Your task to perform on an android device: read, delete, or share a saved page in the chrome app Image 0: 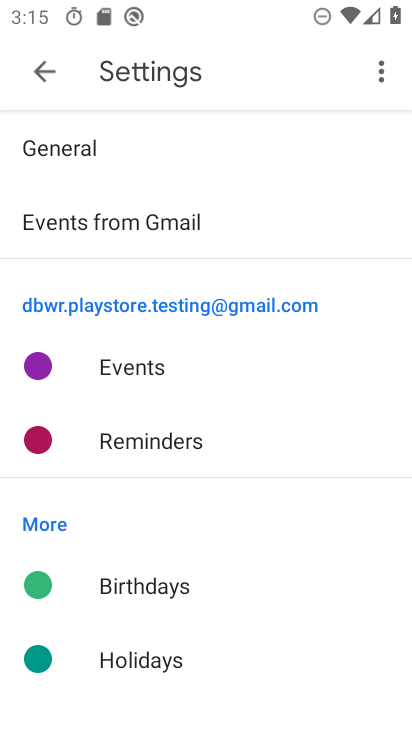
Step 0: press home button
Your task to perform on an android device: read, delete, or share a saved page in the chrome app Image 1: 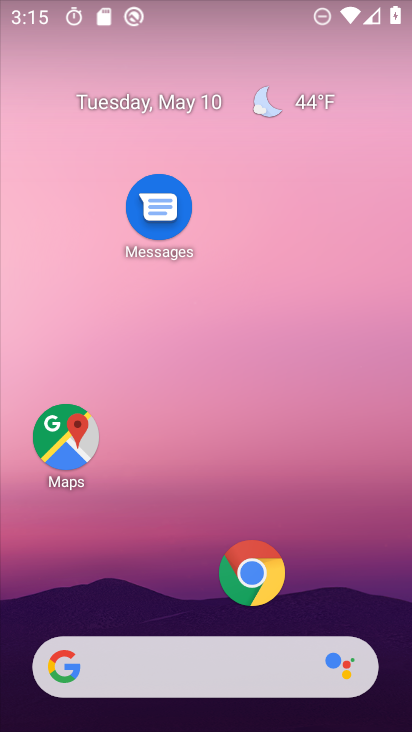
Step 1: click (259, 569)
Your task to perform on an android device: read, delete, or share a saved page in the chrome app Image 2: 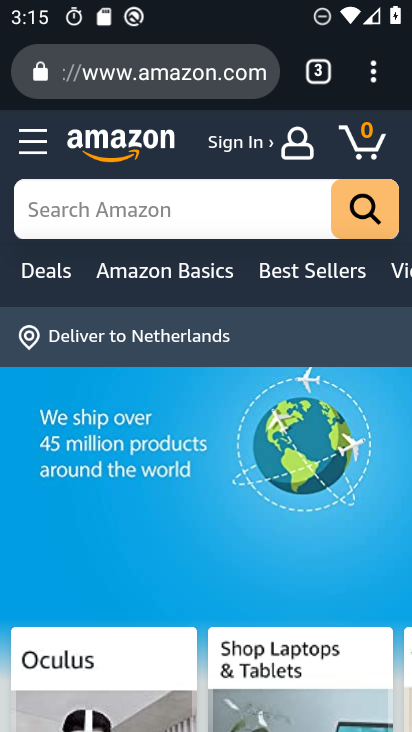
Step 2: drag from (375, 65) to (154, 479)
Your task to perform on an android device: read, delete, or share a saved page in the chrome app Image 3: 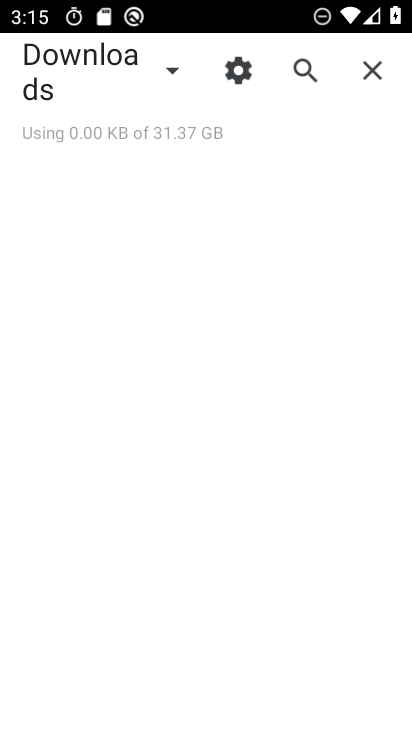
Step 3: click (169, 78)
Your task to perform on an android device: read, delete, or share a saved page in the chrome app Image 4: 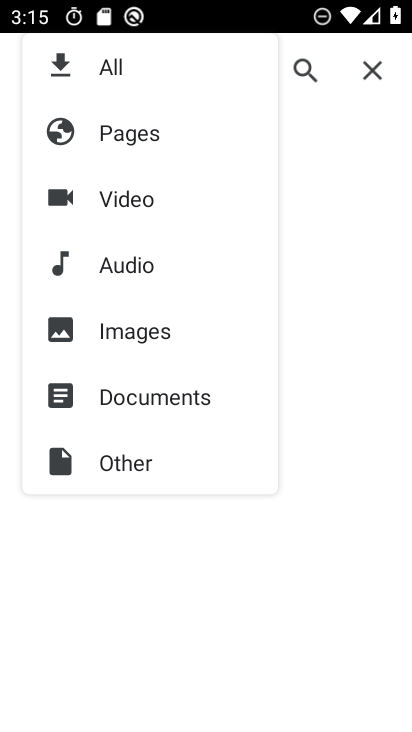
Step 4: click (121, 146)
Your task to perform on an android device: read, delete, or share a saved page in the chrome app Image 5: 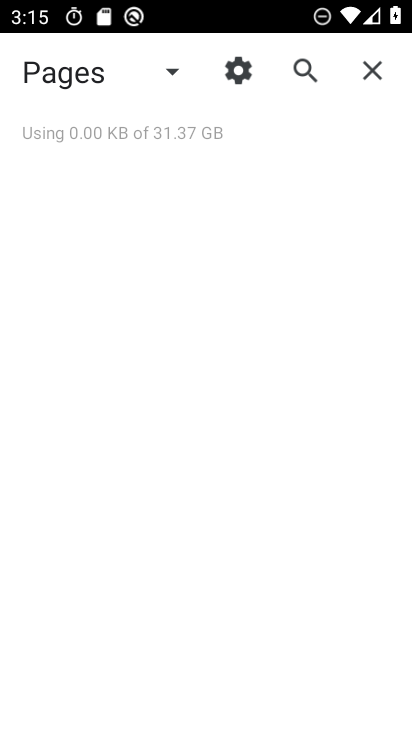
Step 5: task complete